Your task to perform on an android device: create a new album in the google photos Image 0: 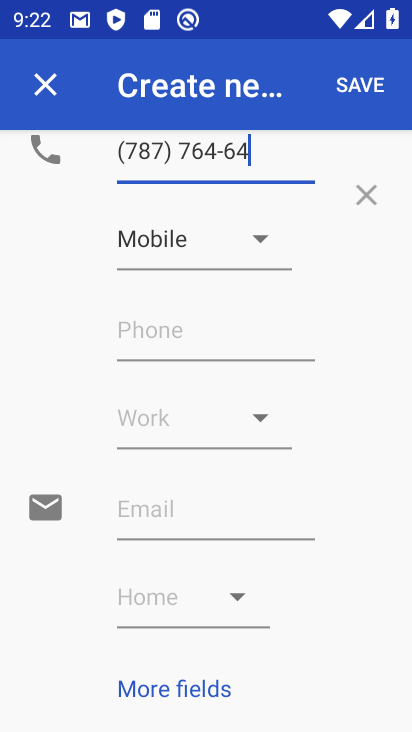
Step 0: press home button
Your task to perform on an android device: create a new album in the google photos Image 1: 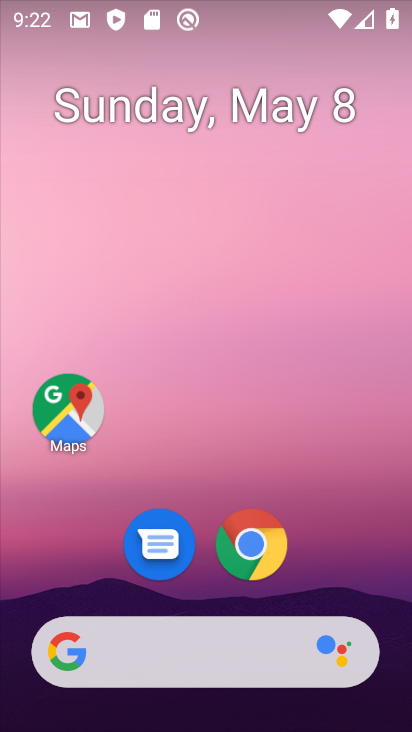
Step 1: drag from (354, 570) to (262, 127)
Your task to perform on an android device: create a new album in the google photos Image 2: 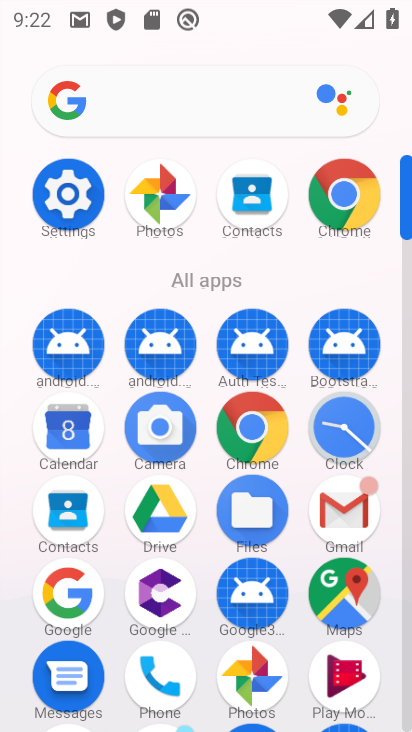
Step 2: click (253, 675)
Your task to perform on an android device: create a new album in the google photos Image 3: 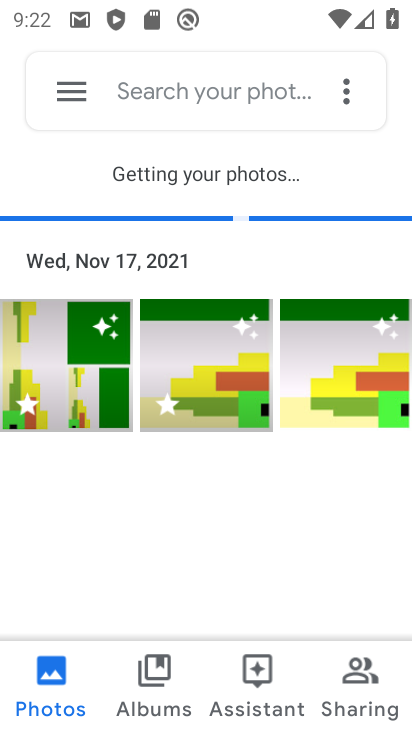
Step 3: click (167, 680)
Your task to perform on an android device: create a new album in the google photos Image 4: 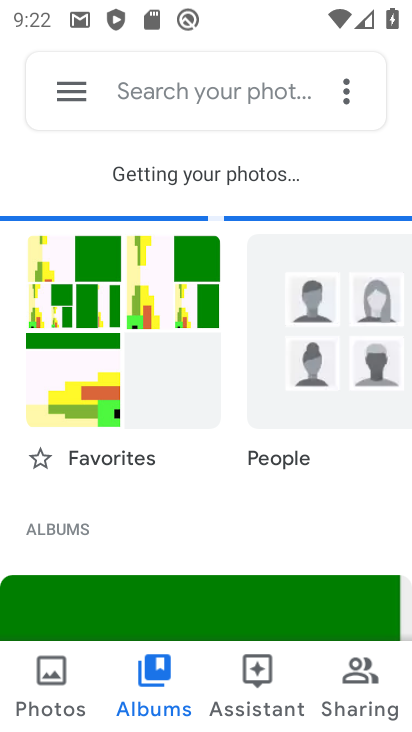
Step 4: click (344, 93)
Your task to perform on an android device: create a new album in the google photos Image 5: 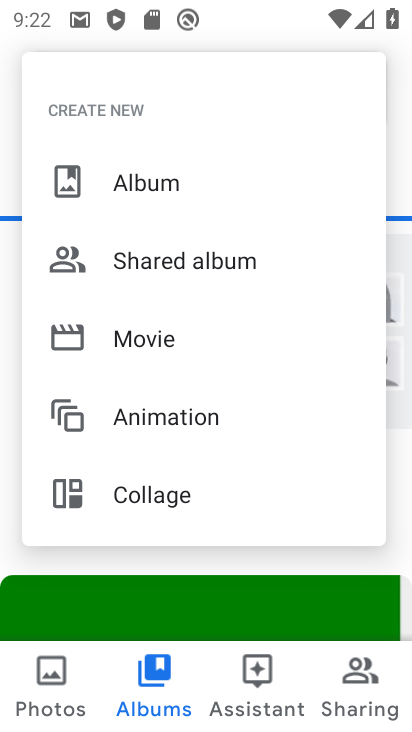
Step 5: click (8, 181)
Your task to perform on an android device: create a new album in the google photos Image 6: 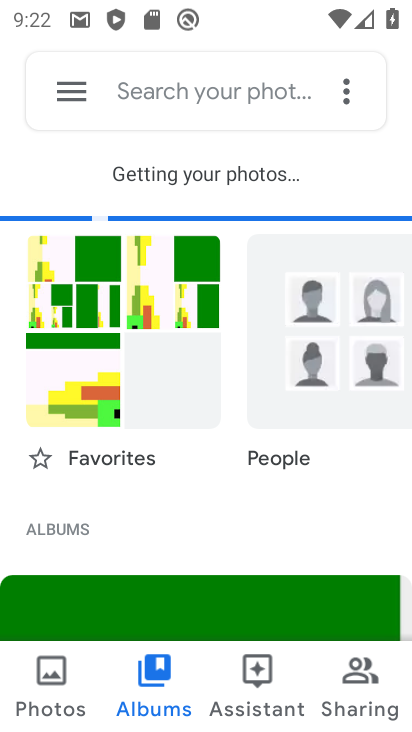
Step 6: click (139, 527)
Your task to perform on an android device: create a new album in the google photos Image 7: 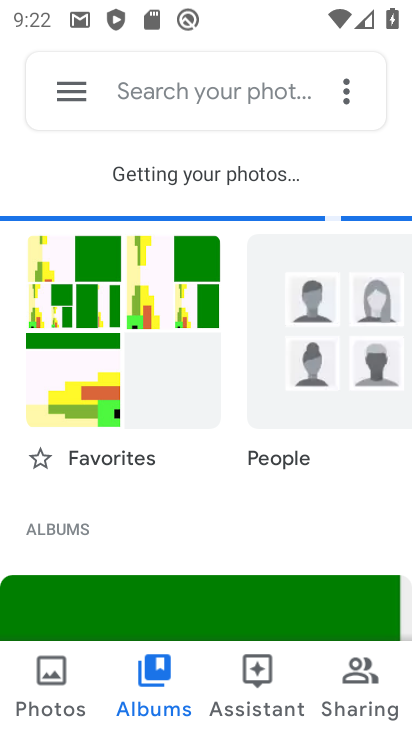
Step 7: click (126, 536)
Your task to perform on an android device: create a new album in the google photos Image 8: 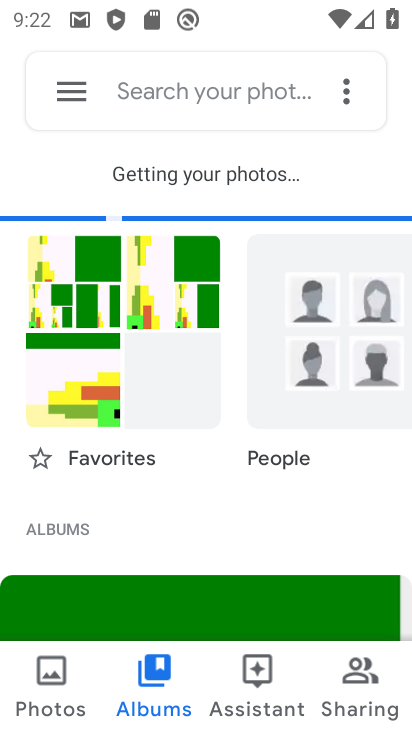
Step 8: click (126, 536)
Your task to perform on an android device: create a new album in the google photos Image 9: 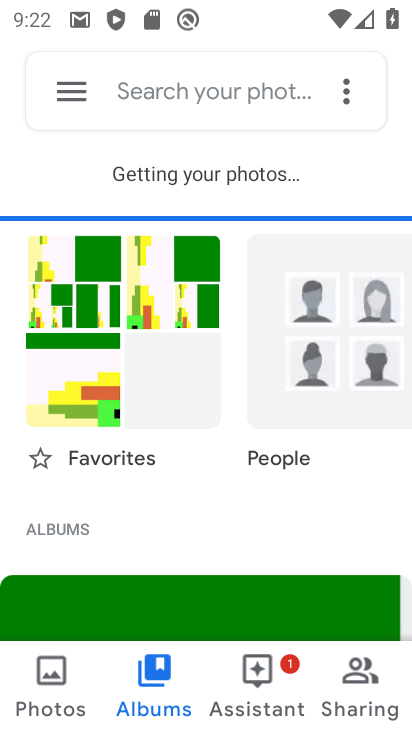
Step 9: click (344, 90)
Your task to perform on an android device: create a new album in the google photos Image 10: 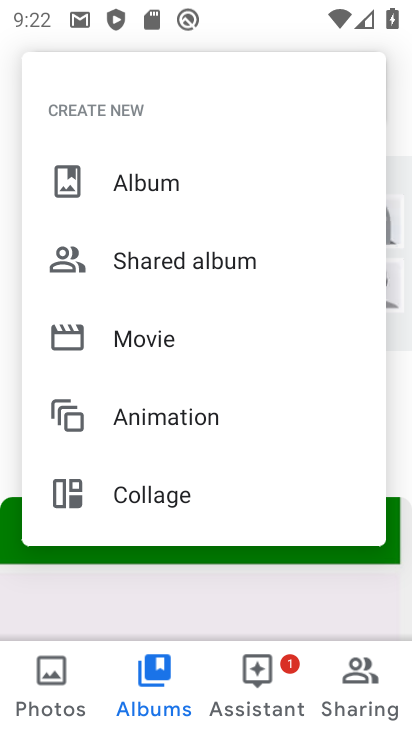
Step 10: click (230, 184)
Your task to perform on an android device: create a new album in the google photos Image 11: 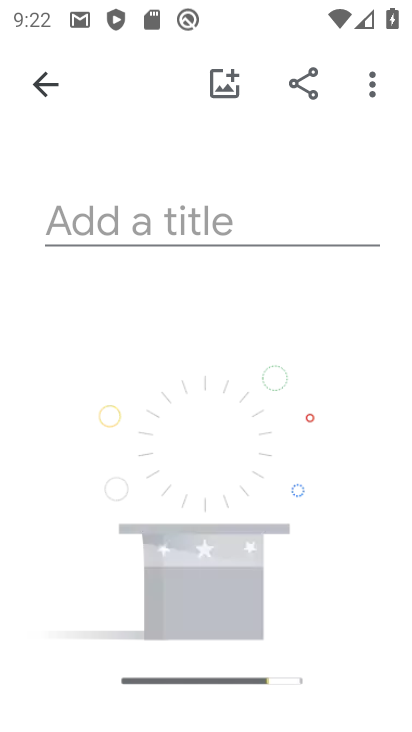
Step 11: click (208, 223)
Your task to perform on an android device: create a new album in the google photos Image 12: 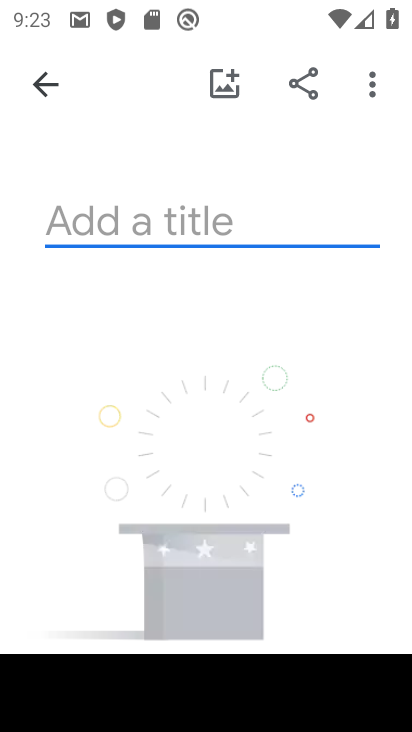
Step 12: type "hjfjhcfh"
Your task to perform on an android device: create a new album in the google photos Image 13: 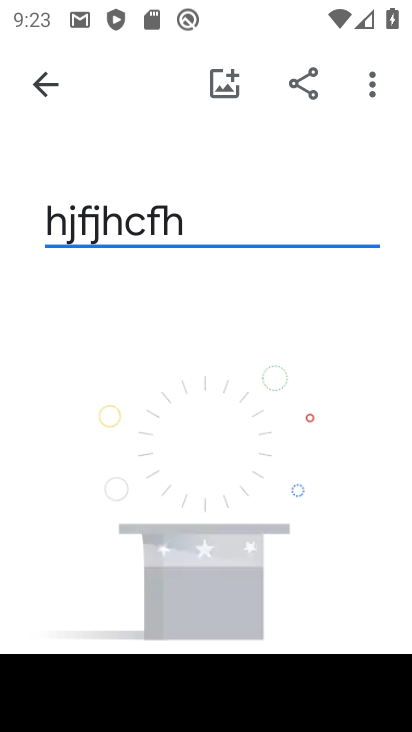
Step 13: click (245, 461)
Your task to perform on an android device: create a new album in the google photos Image 14: 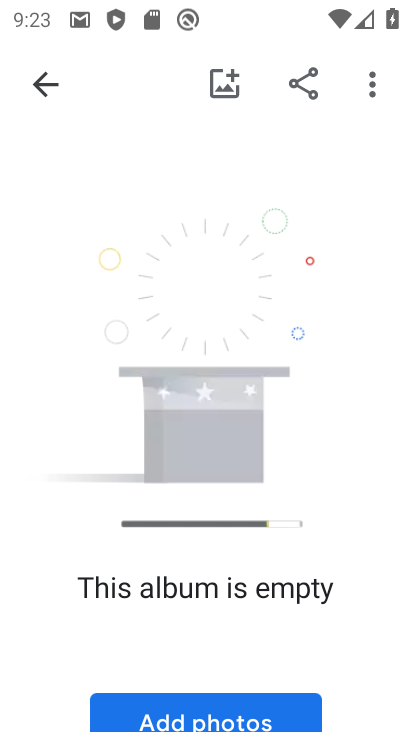
Step 14: click (182, 725)
Your task to perform on an android device: create a new album in the google photos Image 15: 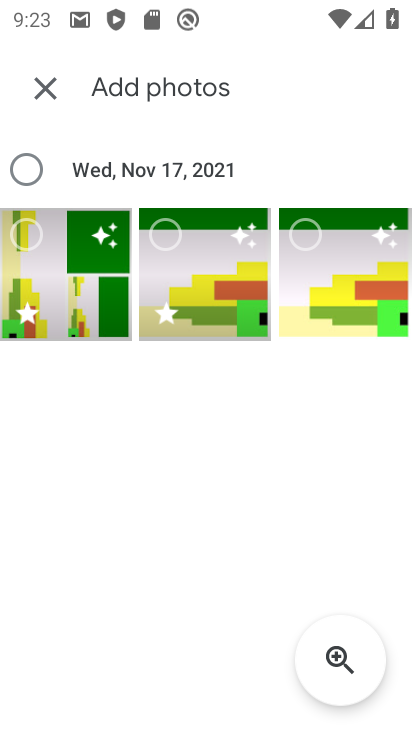
Step 15: click (107, 184)
Your task to perform on an android device: create a new album in the google photos Image 16: 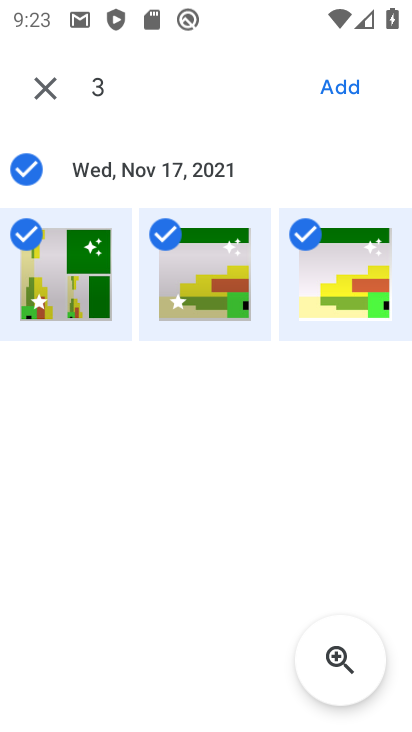
Step 16: task complete